Your task to perform on an android device: Open display settings Image 0: 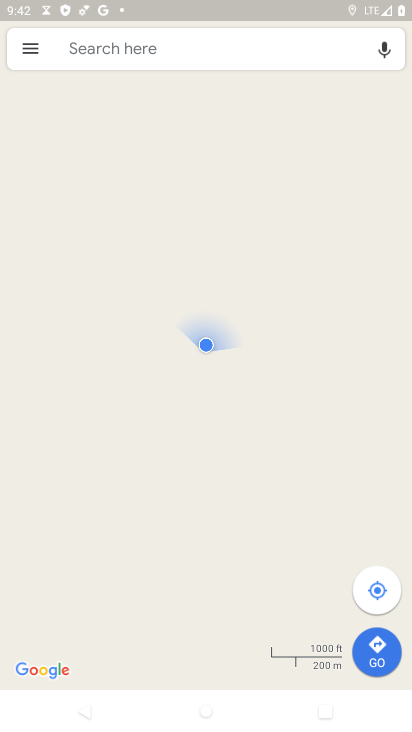
Step 0: press home button
Your task to perform on an android device: Open display settings Image 1: 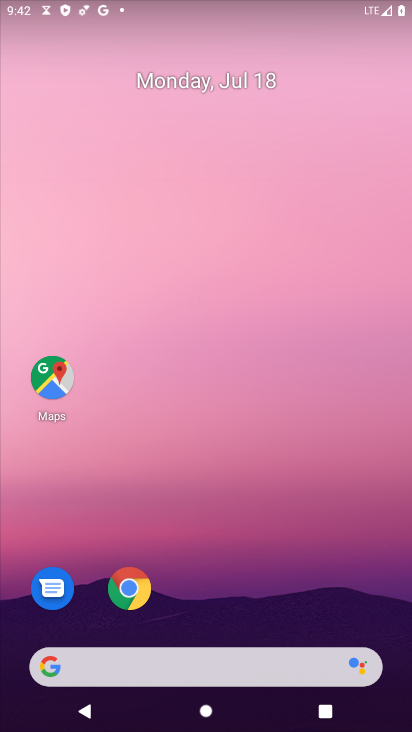
Step 1: drag from (216, 659) to (267, 161)
Your task to perform on an android device: Open display settings Image 2: 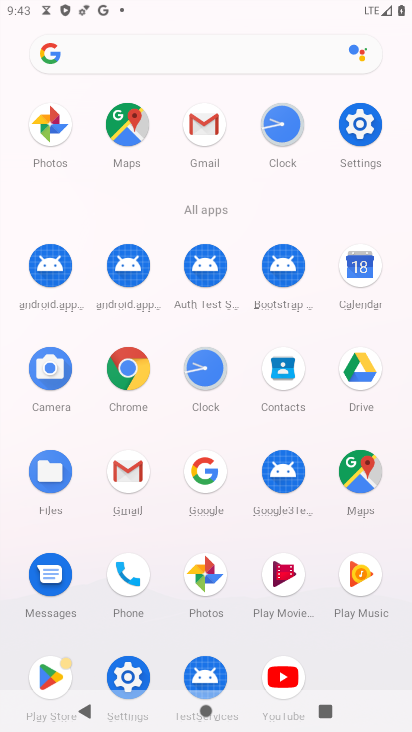
Step 2: click (362, 126)
Your task to perform on an android device: Open display settings Image 3: 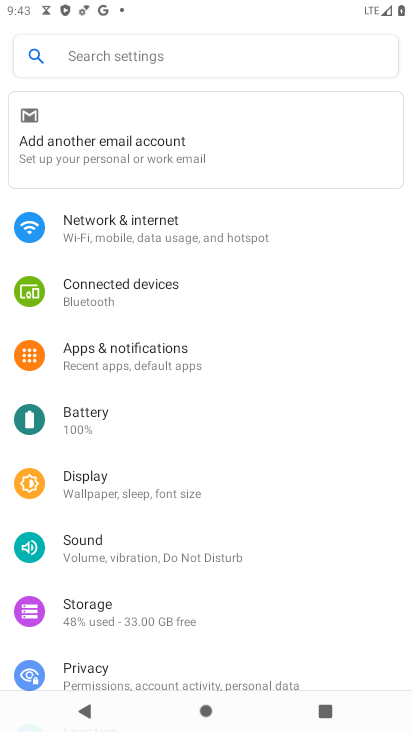
Step 3: click (109, 485)
Your task to perform on an android device: Open display settings Image 4: 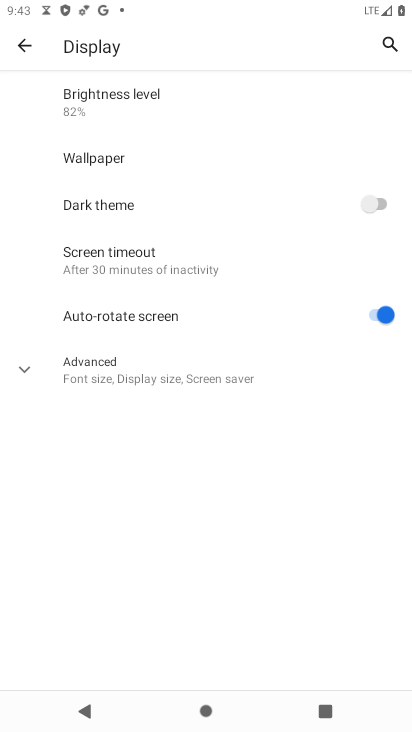
Step 4: task complete